Your task to perform on an android device: Show me productivity apps on the Play Store Image 0: 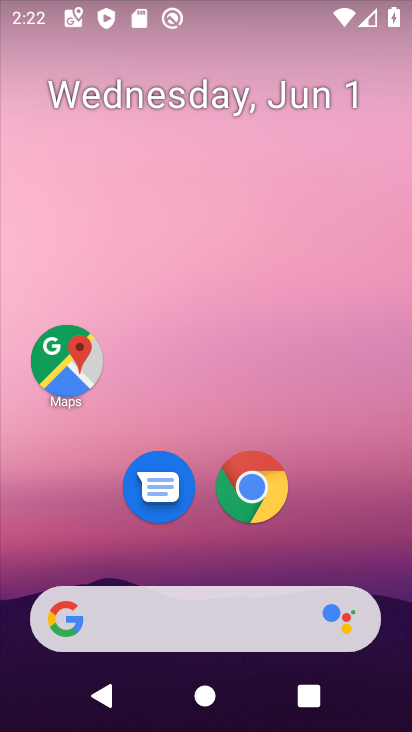
Step 0: drag from (385, 574) to (373, 163)
Your task to perform on an android device: Show me productivity apps on the Play Store Image 1: 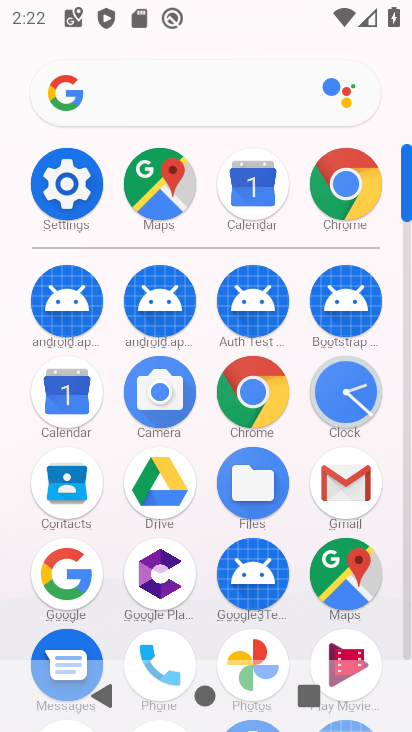
Step 1: drag from (386, 622) to (401, 326)
Your task to perform on an android device: Show me productivity apps on the Play Store Image 2: 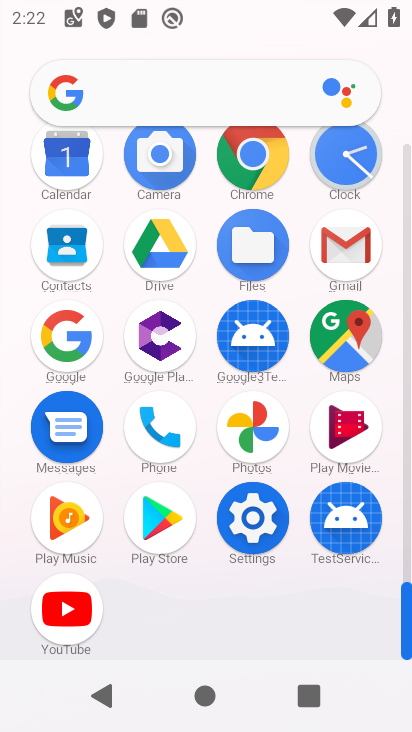
Step 2: click (157, 536)
Your task to perform on an android device: Show me productivity apps on the Play Store Image 3: 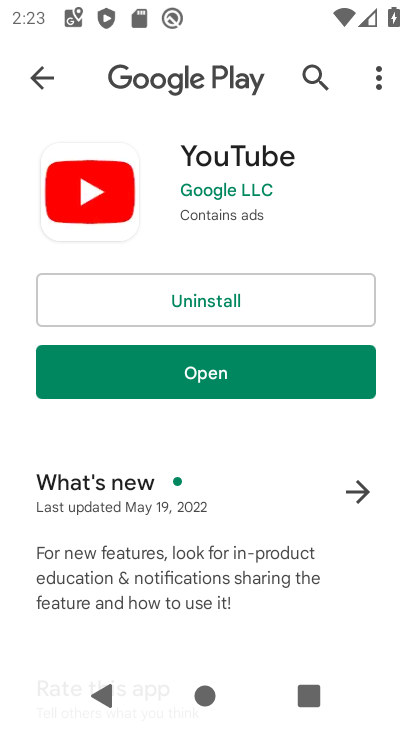
Step 3: click (46, 85)
Your task to perform on an android device: Show me productivity apps on the Play Store Image 4: 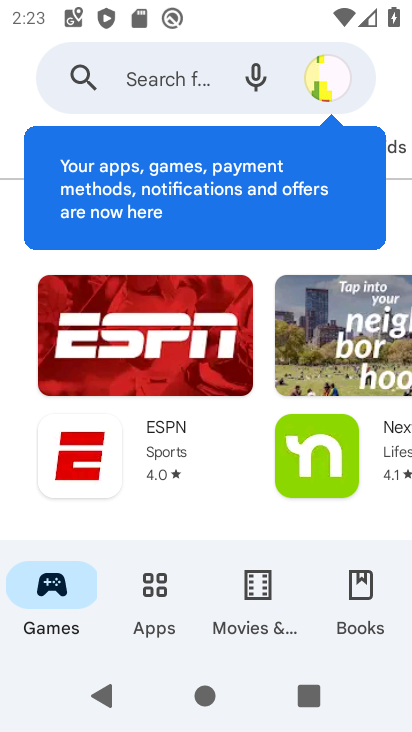
Step 4: click (166, 614)
Your task to perform on an android device: Show me productivity apps on the Play Store Image 5: 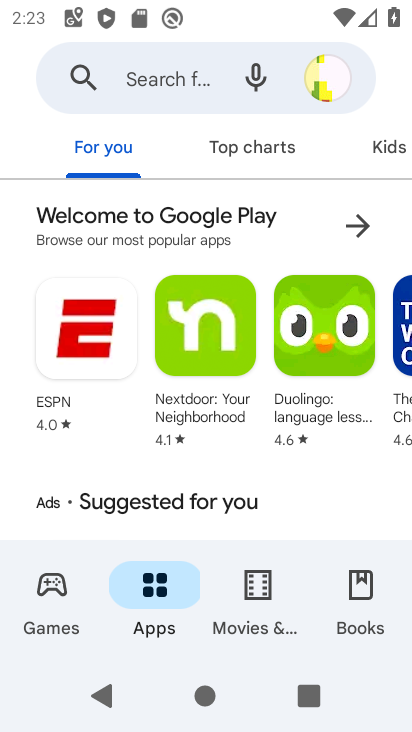
Step 5: task complete